Your task to perform on an android device: Is it going to rain today? Image 0: 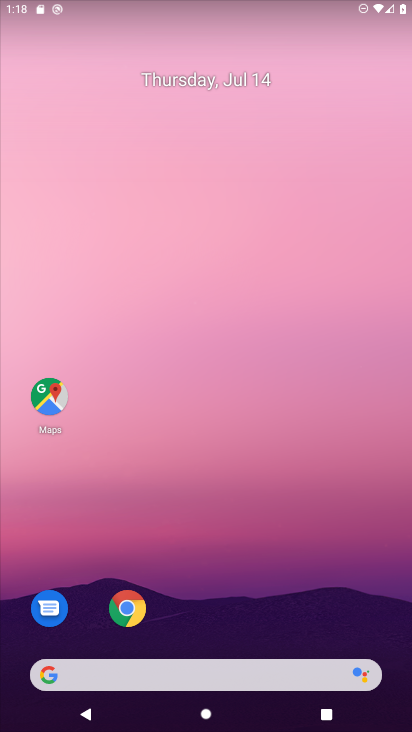
Step 0: drag from (259, 726) to (201, 159)
Your task to perform on an android device: Is it going to rain today? Image 1: 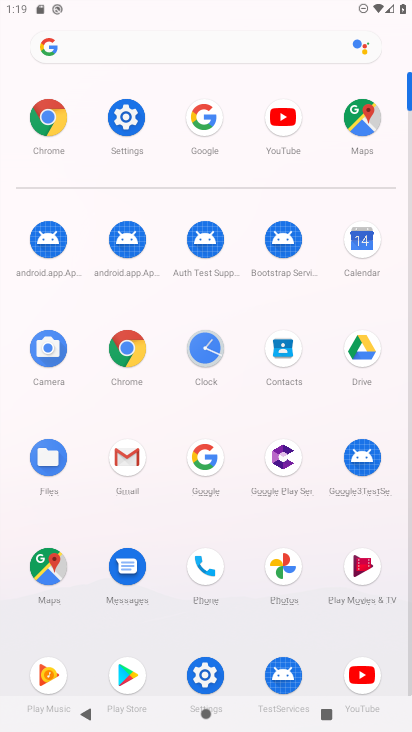
Step 1: click (208, 458)
Your task to perform on an android device: Is it going to rain today? Image 2: 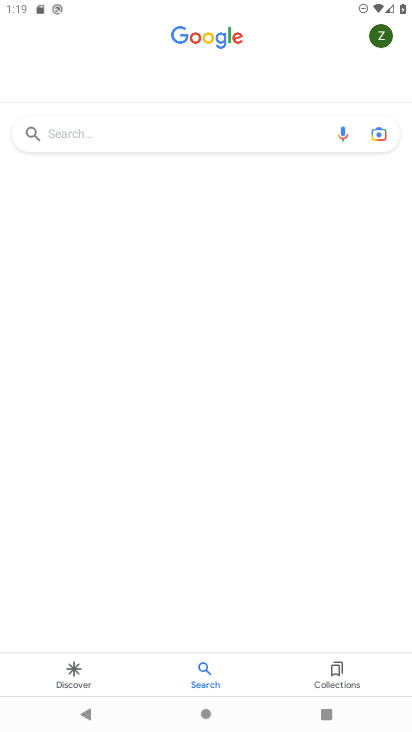
Step 2: click (202, 126)
Your task to perform on an android device: Is it going to rain today? Image 3: 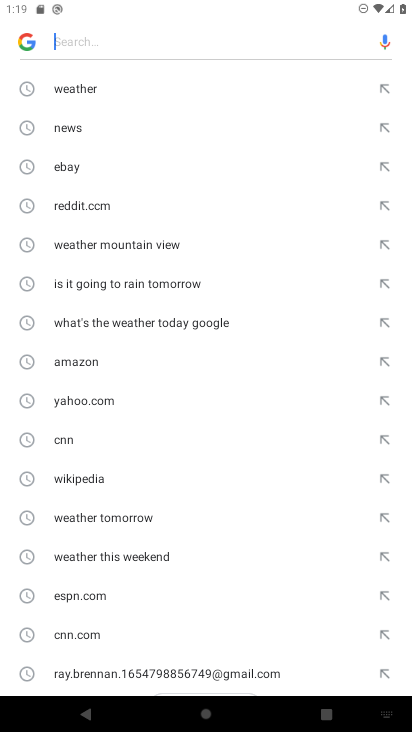
Step 3: click (80, 85)
Your task to perform on an android device: Is it going to rain today? Image 4: 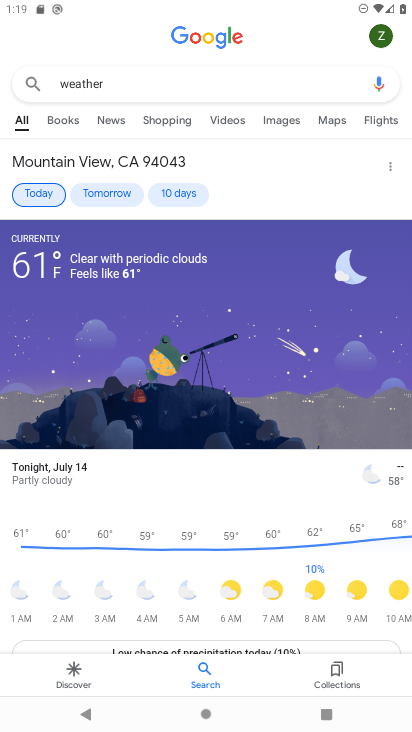
Step 4: click (32, 192)
Your task to perform on an android device: Is it going to rain today? Image 5: 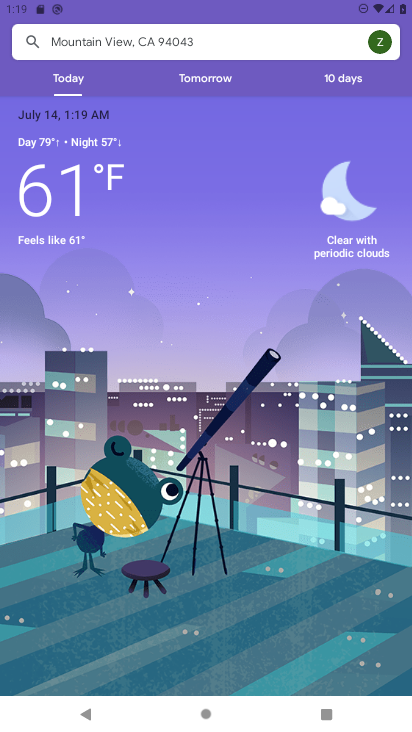
Step 5: task complete